Your task to perform on an android device: set the stopwatch Image 0: 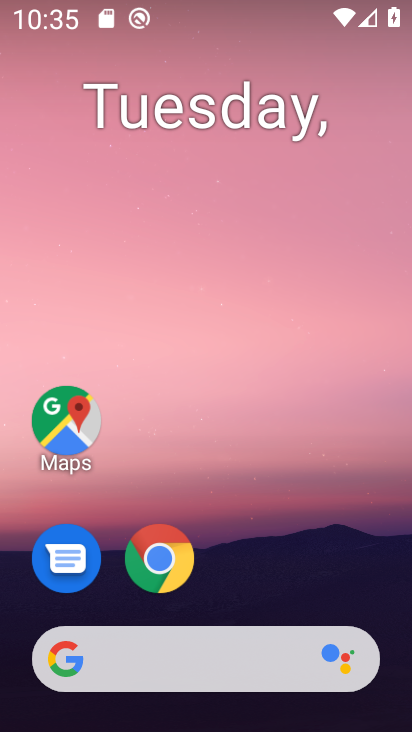
Step 0: drag from (308, 526) to (354, 43)
Your task to perform on an android device: set the stopwatch Image 1: 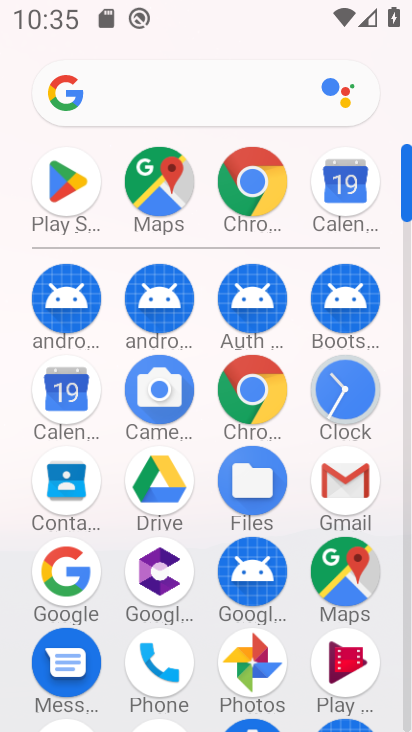
Step 1: click (359, 401)
Your task to perform on an android device: set the stopwatch Image 2: 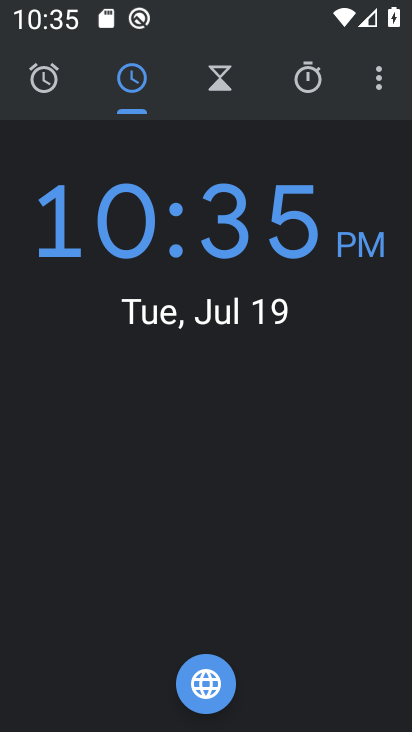
Step 2: click (310, 82)
Your task to perform on an android device: set the stopwatch Image 3: 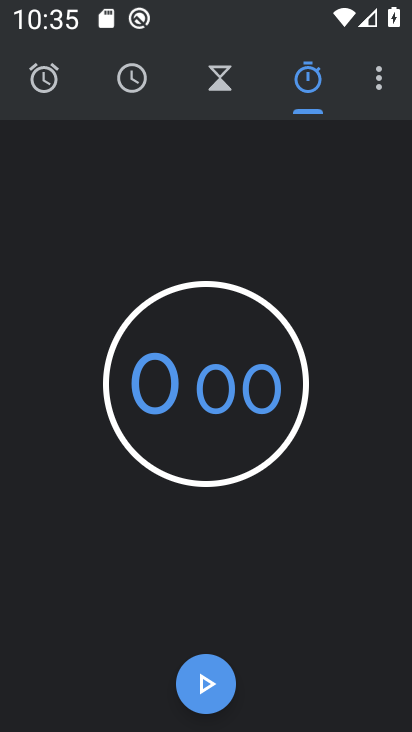
Step 3: task complete